Your task to perform on an android device: Open ESPN.com Image 0: 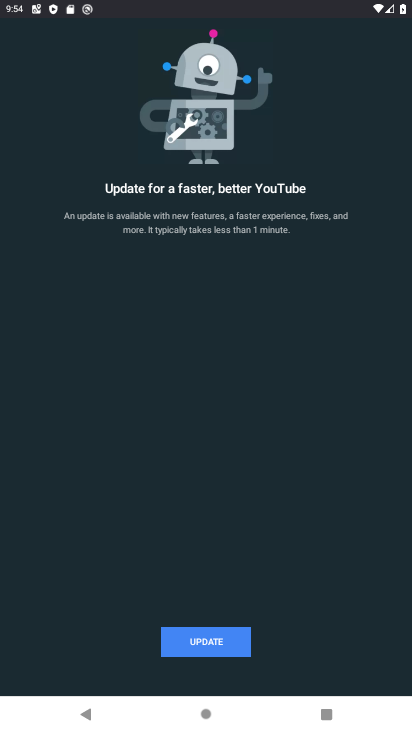
Step 0: press home button
Your task to perform on an android device: Open ESPN.com Image 1: 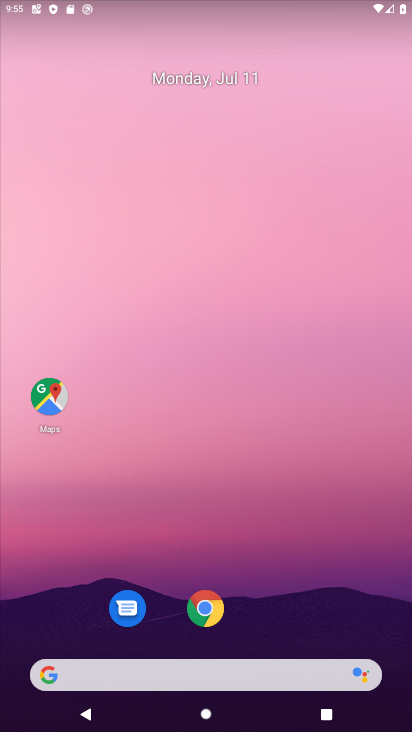
Step 1: click (128, 682)
Your task to perform on an android device: Open ESPN.com Image 2: 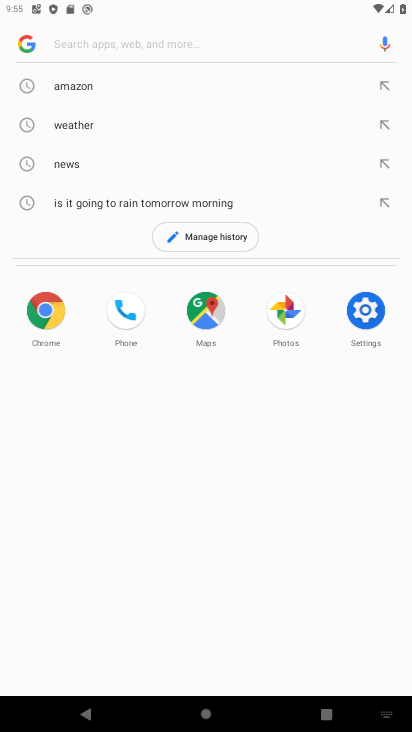
Step 2: type "ESPN.com"
Your task to perform on an android device: Open ESPN.com Image 3: 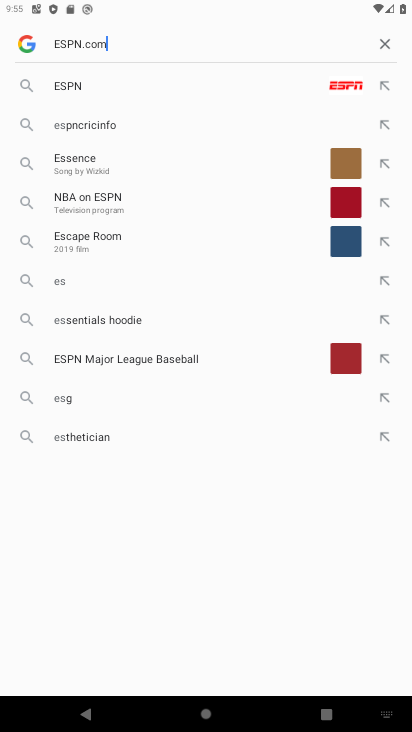
Step 3: type ""
Your task to perform on an android device: Open ESPN.com Image 4: 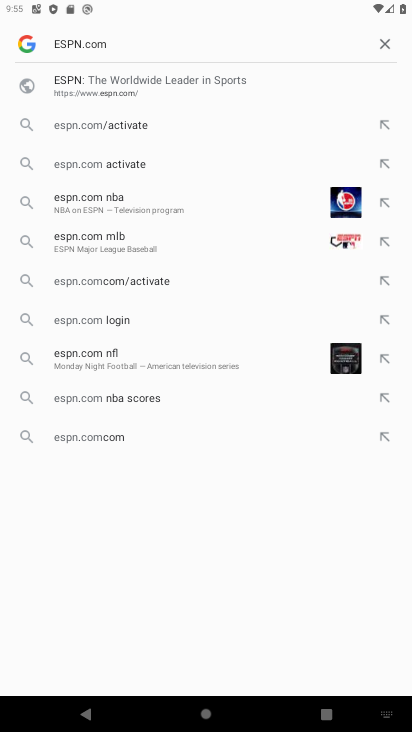
Step 4: click (105, 84)
Your task to perform on an android device: Open ESPN.com Image 5: 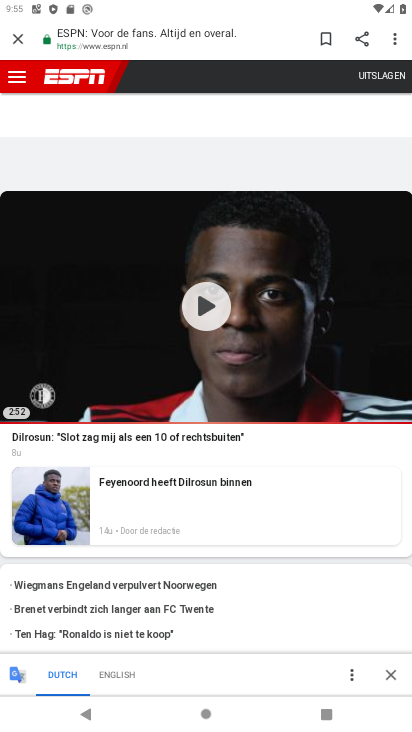
Step 5: task complete